Your task to perform on an android device: Open Google Chrome and click the shortcut for Amazon.com Image 0: 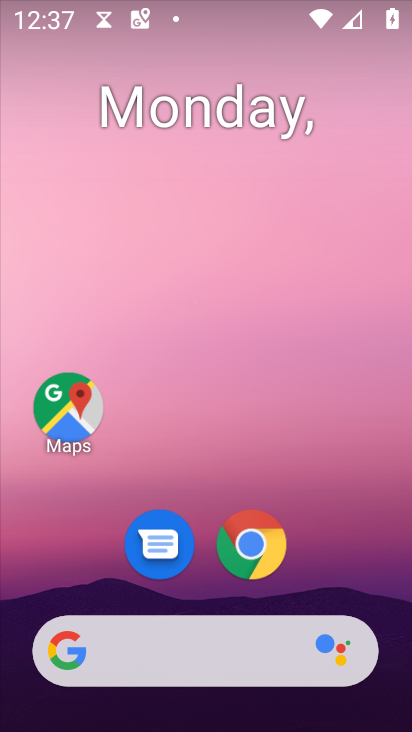
Step 0: click (260, 537)
Your task to perform on an android device: Open Google Chrome and click the shortcut for Amazon.com Image 1: 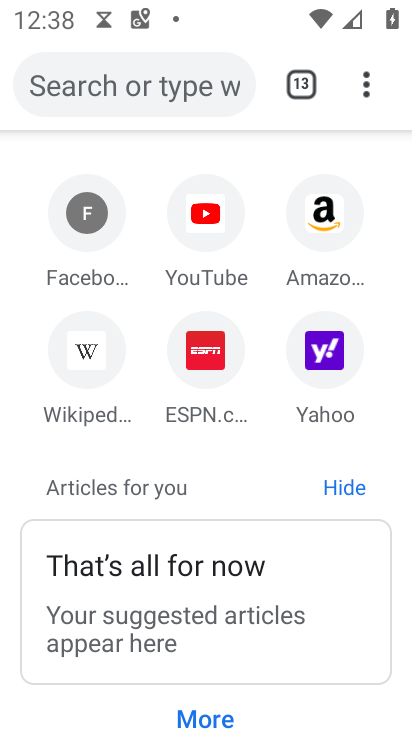
Step 1: click (361, 81)
Your task to perform on an android device: Open Google Chrome and click the shortcut for Amazon.com Image 2: 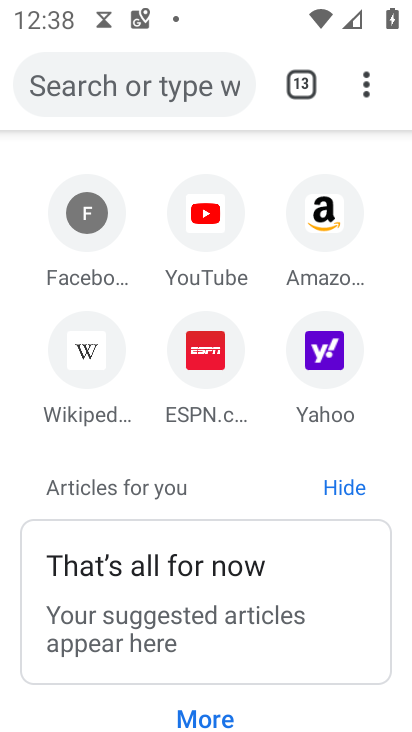
Step 2: click (315, 200)
Your task to perform on an android device: Open Google Chrome and click the shortcut for Amazon.com Image 3: 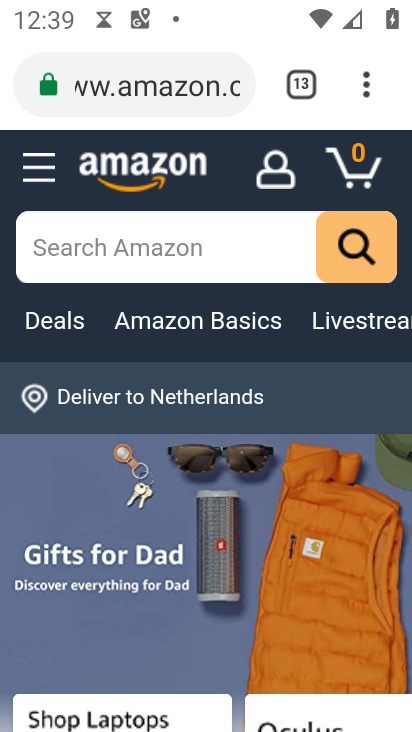
Step 3: task complete